Your task to perform on an android device: Open Yahoo.com Image 0: 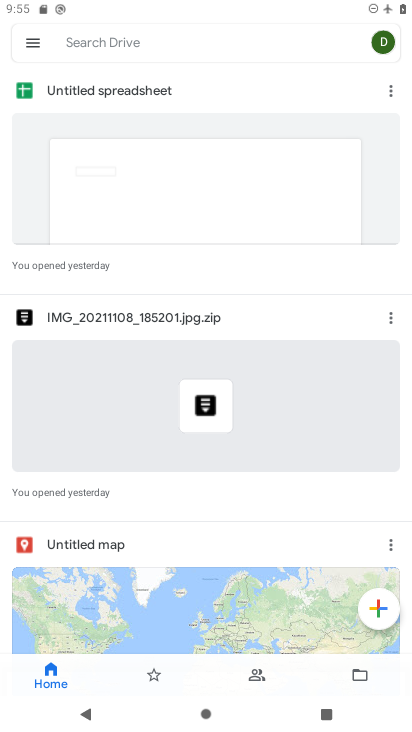
Step 0: press home button
Your task to perform on an android device: Open Yahoo.com Image 1: 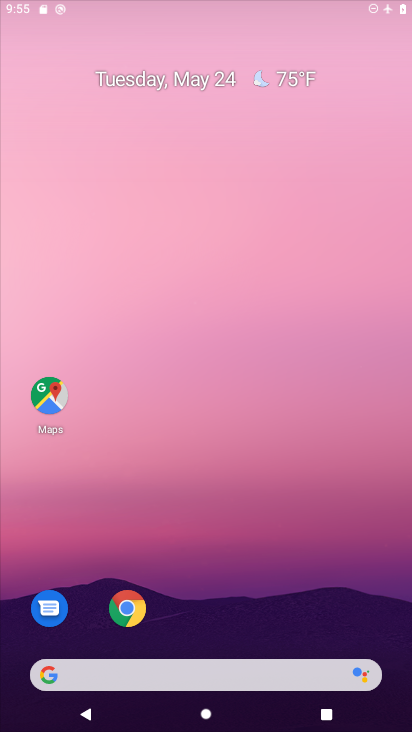
Step 1: drag from (278, 302) to (198, 15)
Your task to perform on an android device: Open Yahoo.com Image 2: 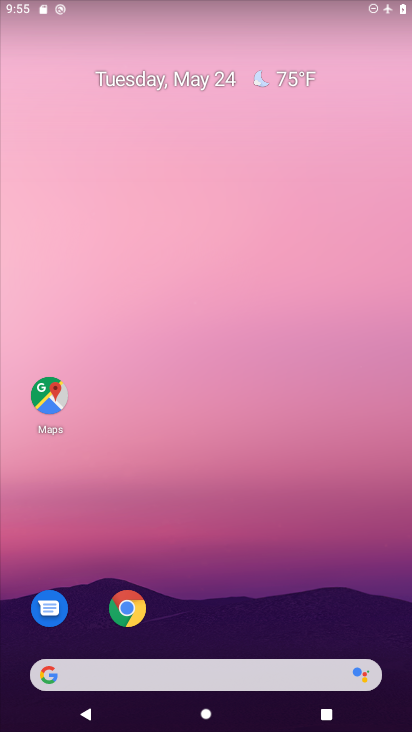
Step 2: click (121, 602)
Your task to perform on an android device: Open Yahoo.com Image 3: 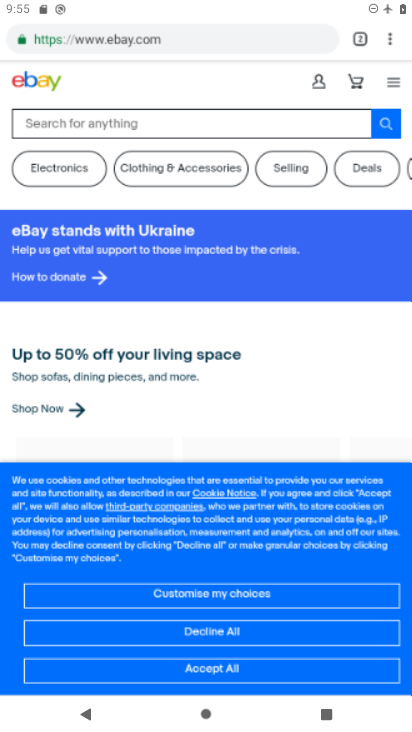
Step 3: click (362, 33)
Your task to perform on an android device: Open Yahoo.com Image 4: 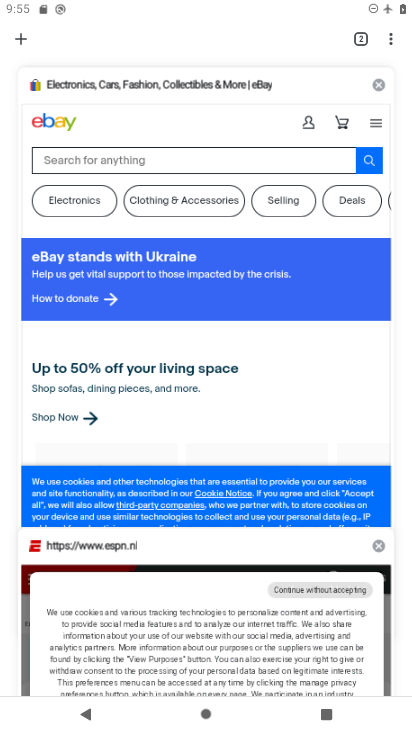
Step 4: click (23, 37)
Your task to perform on an android device: Open Yahoo.com Image 5: 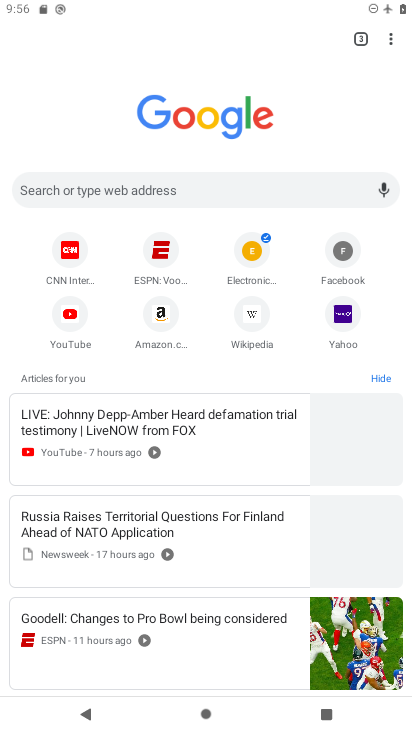
Step 5: click (345, 315)
Your task to perform on an android device: Open Yahoo.com Image 6: 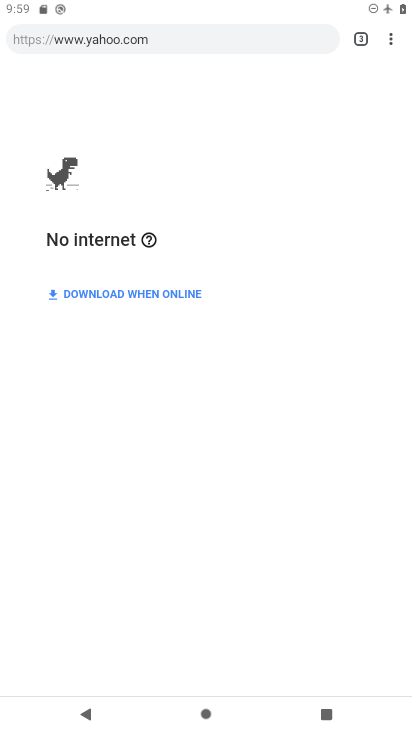
Step 6: task complete